Your task to perform on an android device: add a contact Image 0: 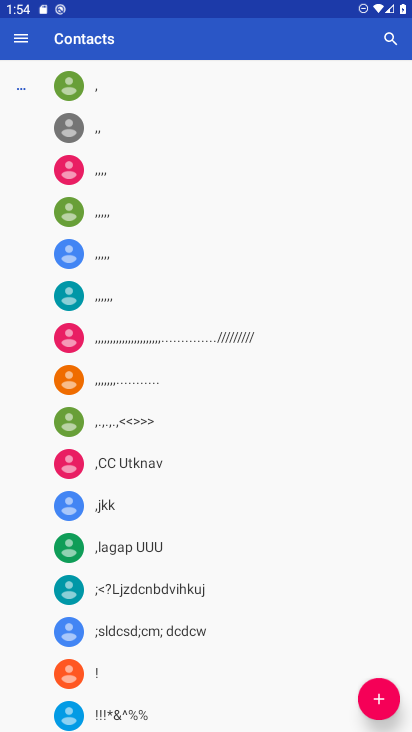
Step 0: press home button
Your task to perform on an android device: add a contact Image 1: 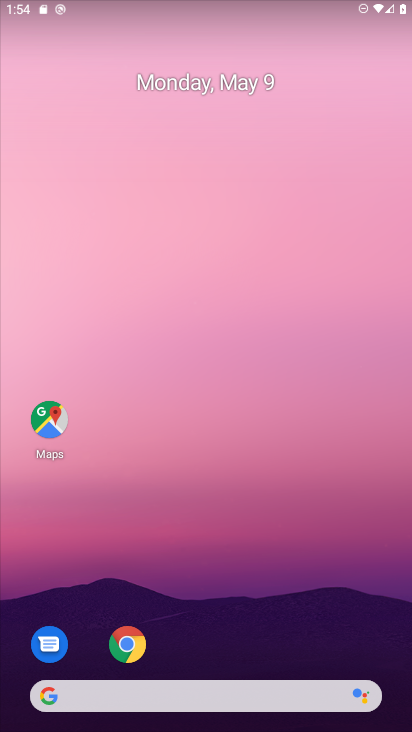
Step 1: drag from (243, 657) to (225, 241)
Your task to perform on an android device: add a contact Image 2: 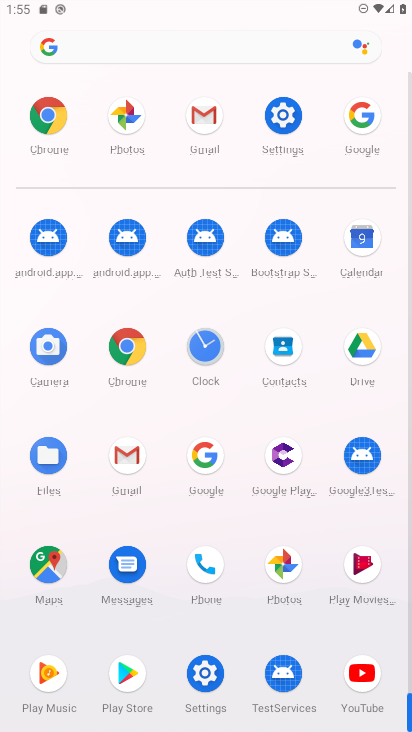
Step 2: click (291, 351)
Your task to perform on an android device: add a contact Image 3: 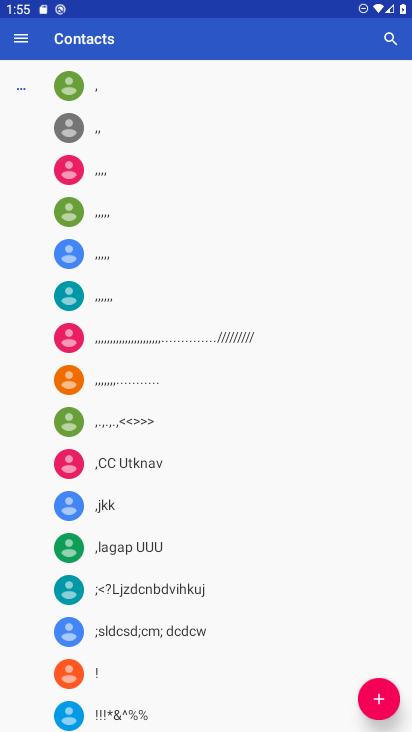
Step 3: click (368, 709)
Your task to perform on an android device: add a contact Image 4: 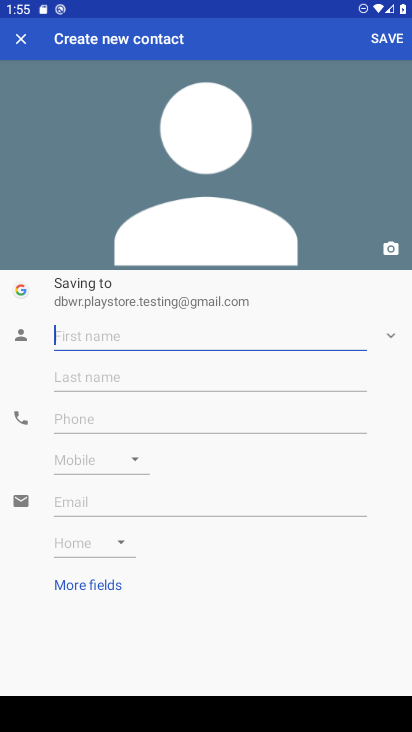
Step 4: click (108, 339)
Your task to perform on an android device: add a contact Image 5: 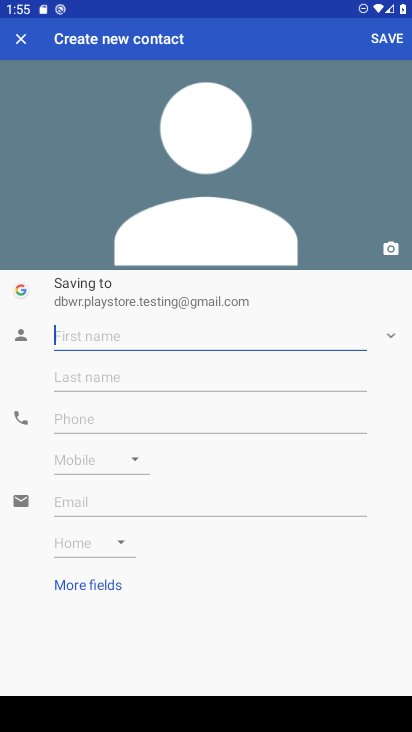
Step 5: type ""
Your task to perform on an android device: add a contact Image 6: 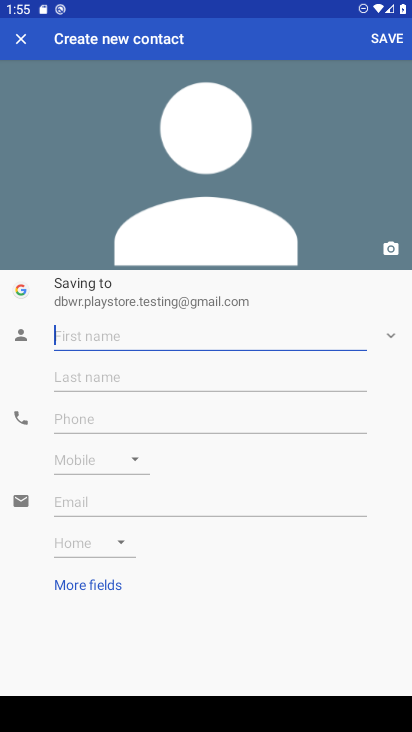
Step 6: type "Anubha"
Your task to perform on an android device: add a contact Image 7: 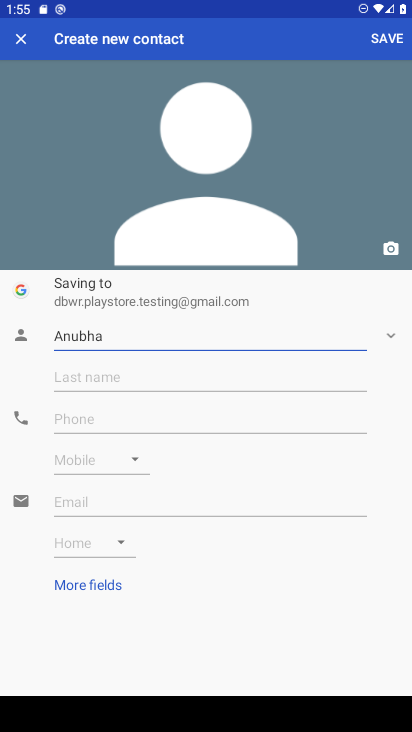
Step 7: click (158, 367)
Your task to perform on an android device: add a contact Image 8: 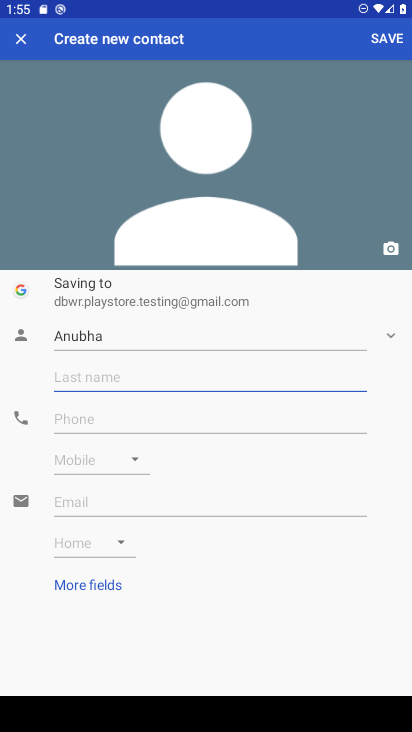
Step 8: type "Sinha"
Your task to perform on an android device: add a contact Image 9: 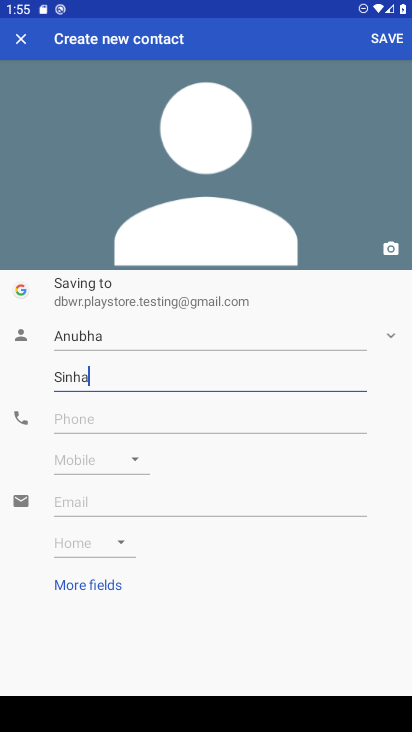
Step 9: click (186, 424)
Your task to perform on an android device: add a contact Image 10: 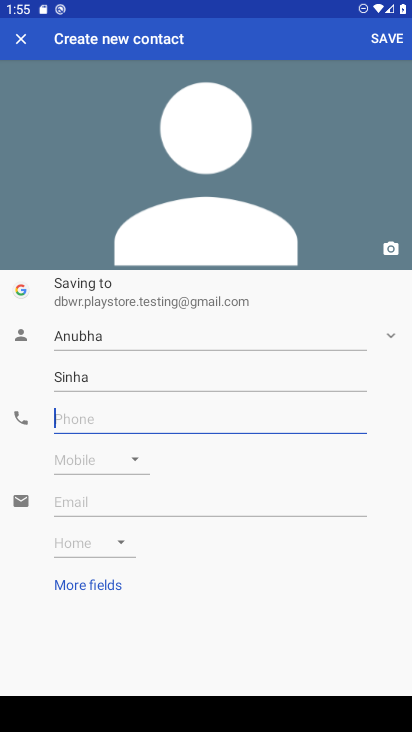
Step 10: type "6789098767"
Your task to perform on an android device: add a contact Image 11: 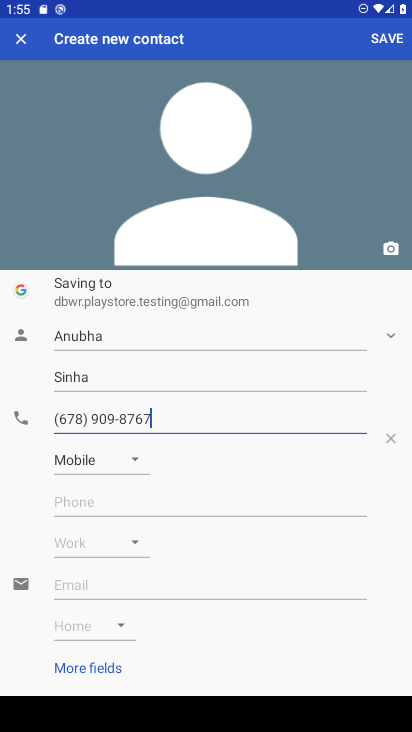
Step 11: task complete